Your task to perform on an android device: find which apps use the phone's location Image 0: 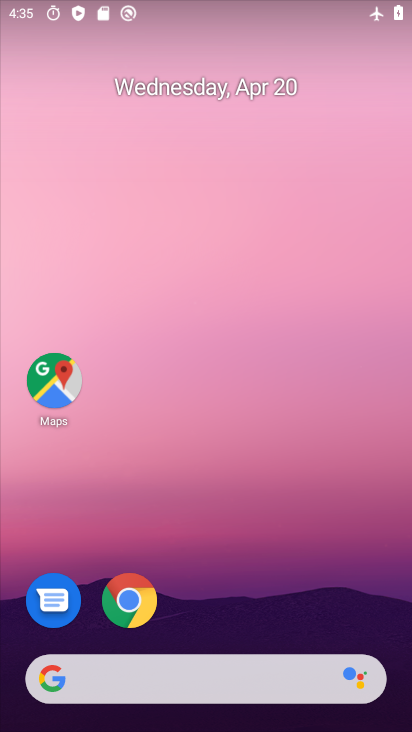
Step 0: drag from (311, 615) to (305, 144)
Your task to perform on an android device: find which apps use the phone's location Image 1: 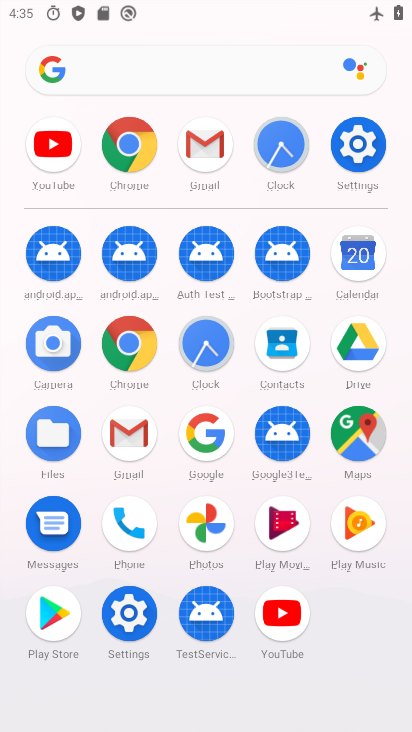
Step 1: click (131, 608)
Your task to perform on an android device: find which apps use the phone's location Image 2: 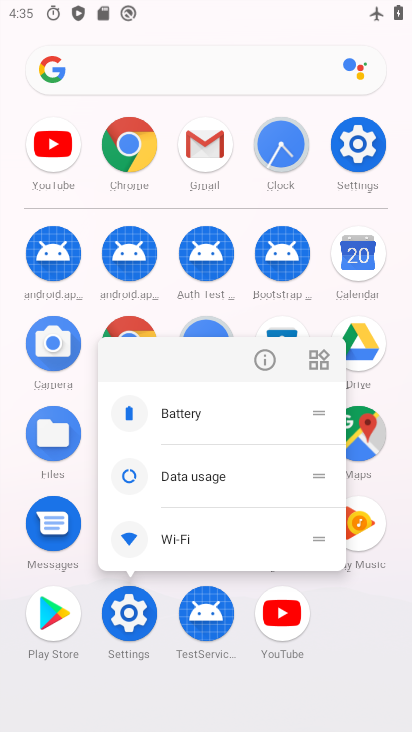
Step 2: click (132, 606)
Your task to perform on an android device: find which apps use the phone's location Image 3: 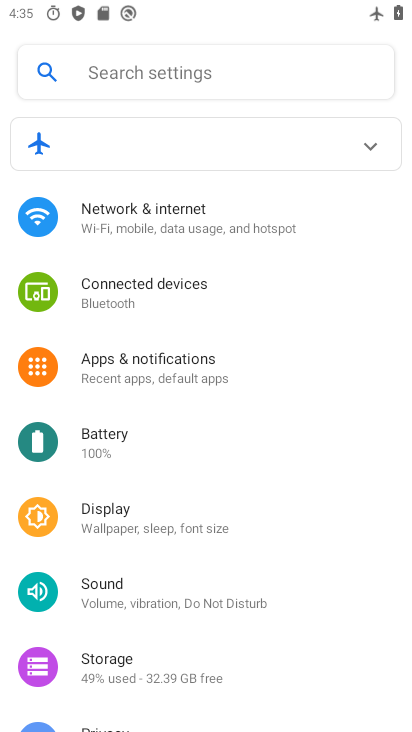
Step 3: drag from (227, 580) to (243, 188)
Your task to perform on an android device: find which apps use the phone's location Image 4: 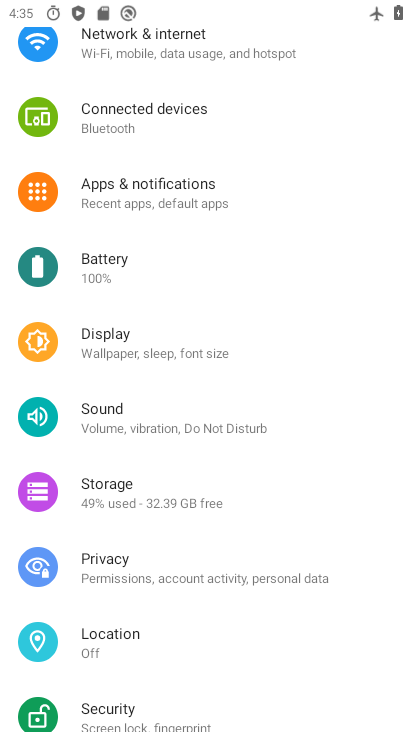
Step 4: click (91, 650)
Your task to perform on an android device: find which apps use the phone's location Image 5: 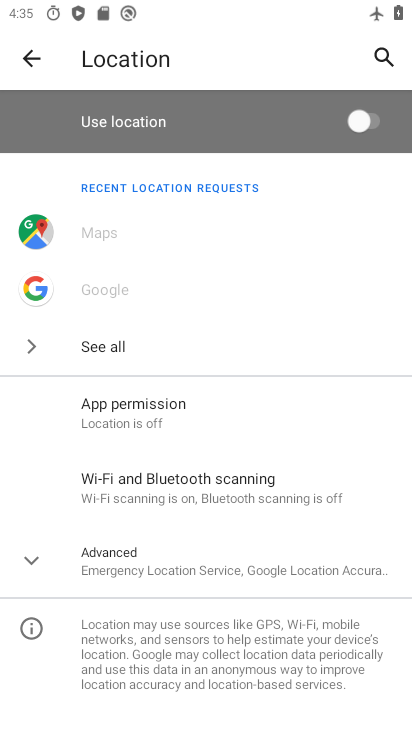
Step 5: click (127, 398)
Your task to perform on an android device: find which apps use the phone's location Image 6: 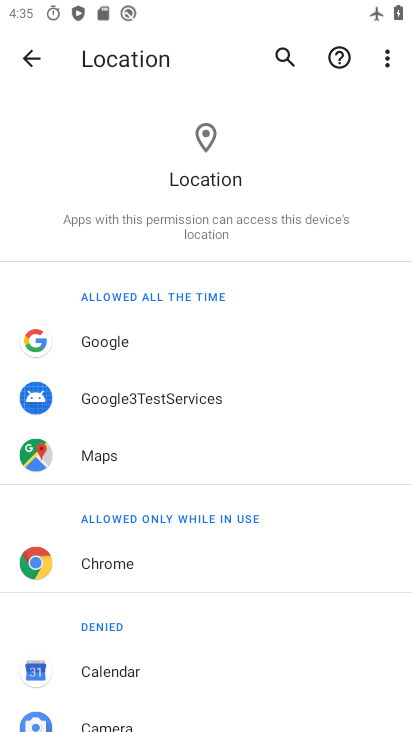
Step 6: task complete